Your task to perform on an android device: make emails show in primary in the gmail app Image 0: 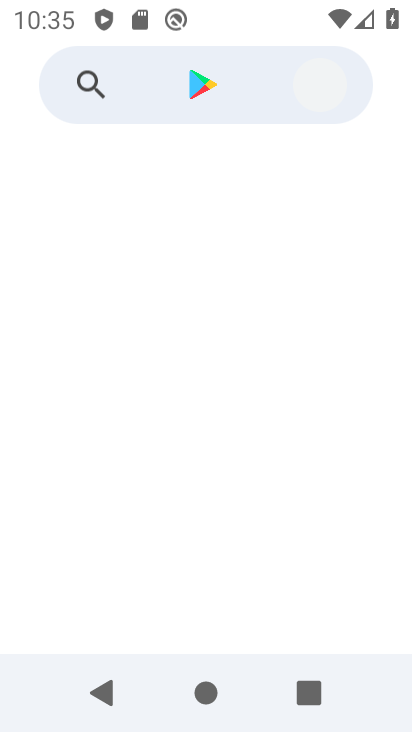
Step 0: press home button
Your task to perform on an android device: make emails show in primary in the gmail app Image 1: 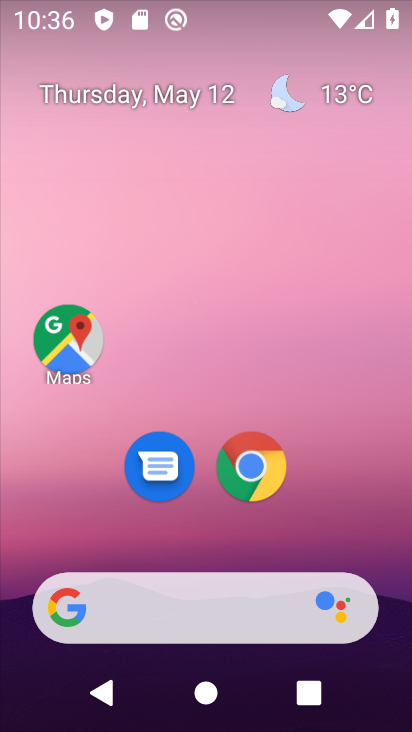
Step 1: drag from (370, 538) to (367, 148)
Your task to perform on an android device: make emails show in primary in the gmail app Image 2: 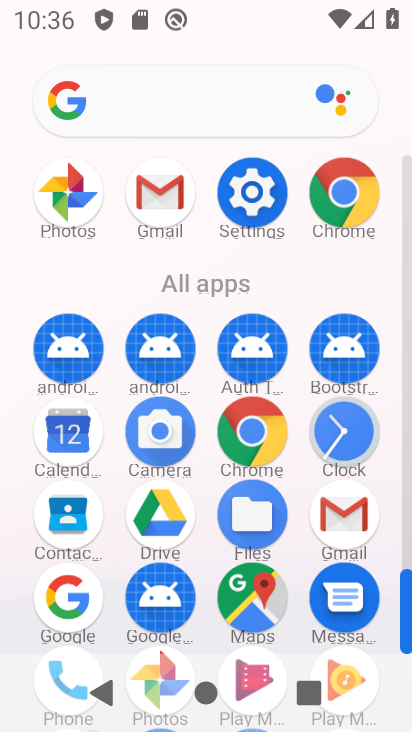
Step 2: click (334, 525)
Your task to perform on an android device: make emails show in primary in the gmail app Image 3: 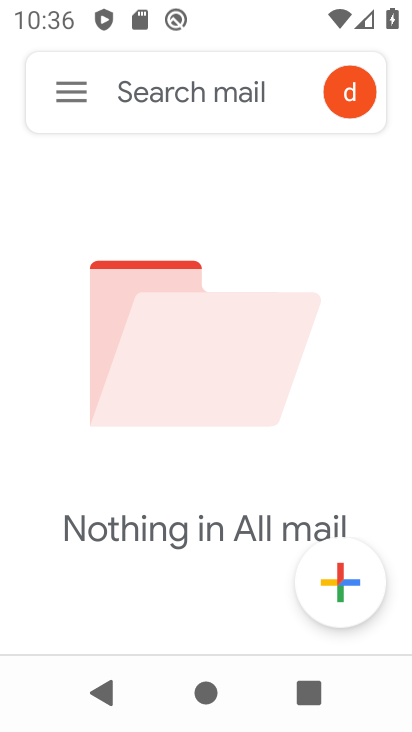
Step 3: click (86, 95)
Your task to perform on an android device: make emails show in primary in the gmail app Image 4: 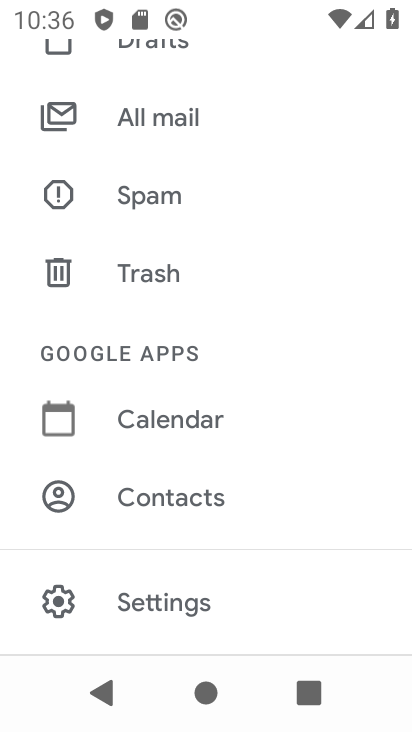
Step 4: drag from (282, 172) to (280, 571)
Your task to perform on an android device: make emails show in primary in the gmail app Image 5: 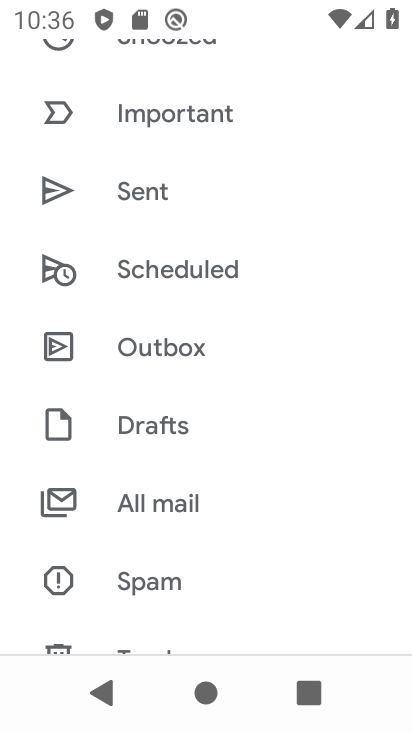
Step 5: drag from (253, 139) to (234, 579)
Your task to perform on an android device: make emails show in primary in the gmail app Image 6: 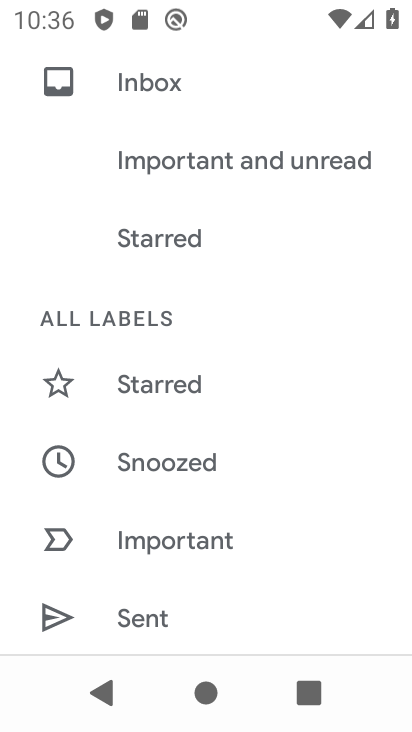
Step 6: drag from (282, 120) to (248, 401)
Your task to perform on an android device: make emails show in primary in the gmail app Image 7: 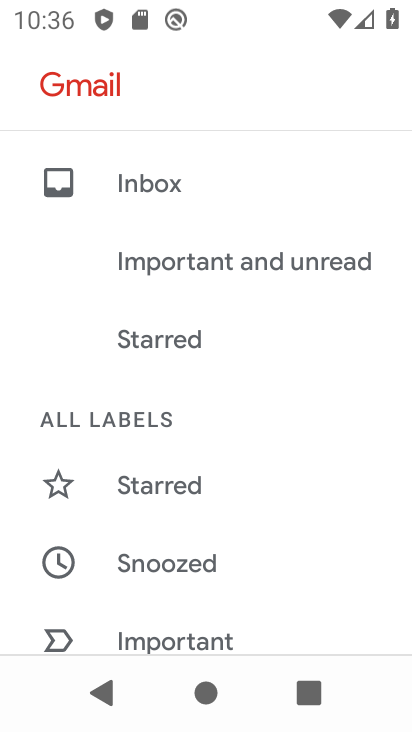
Step 7: drag from (287, 570) to (287, 178)
Your task to perform on an android device: make emails show in primary in the gmail app Image 8: 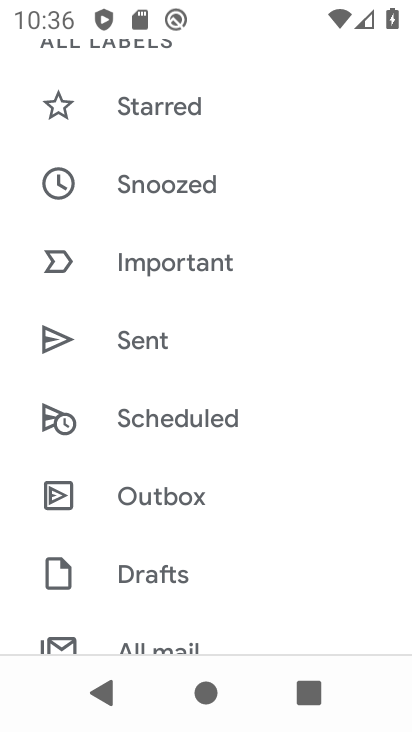
Step 8: drag from (286, 606) to (288, 149)
Your task to perform on an android device: make emails show in primary in the gmail app Image 9: 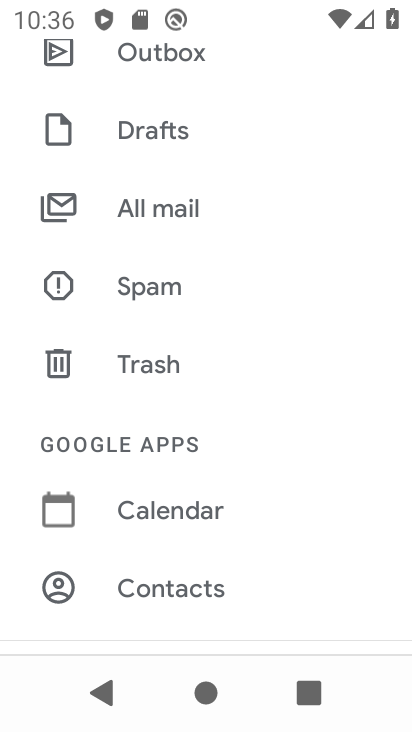
Step 9: drag from (306, 607) to (307, 176)
Your task to perform on an android device: make emails show in primary in the gmail app Image 10: 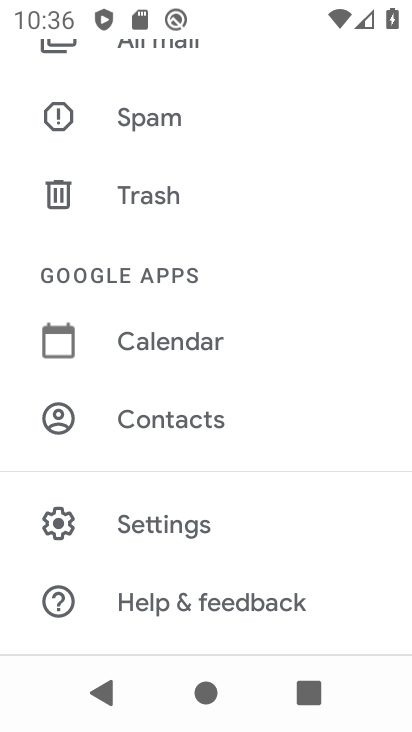
Step 10: click (224, 528)
Your task to perform on an android device: make emails show in primary in the gmail app Image 11: 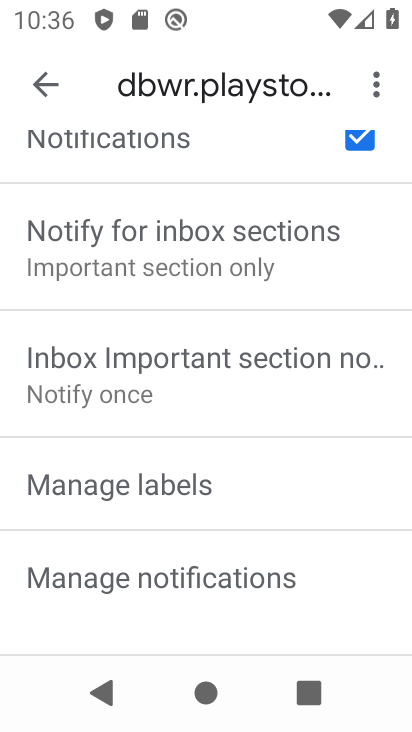
Step 11: drag from (278, 541) to (267, 222)
Your task to perform on an android device: make emails show in primary in the gmail app Image 12: 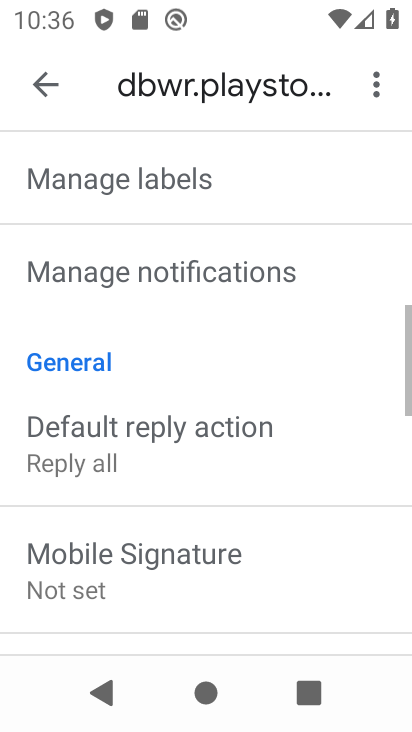
Step 12: drag from (304, 563) to (303, 290)
Your task to perform on an android device: make emails show in primary in the gmail app Image 13: 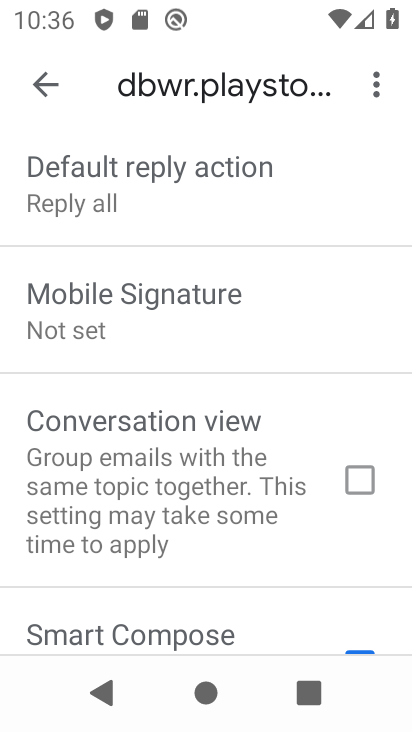
Step 13: drag from (305, 584) to (291, 284)
Your task to perform on an android device: make emails show in primary in the gmail app Image 14: 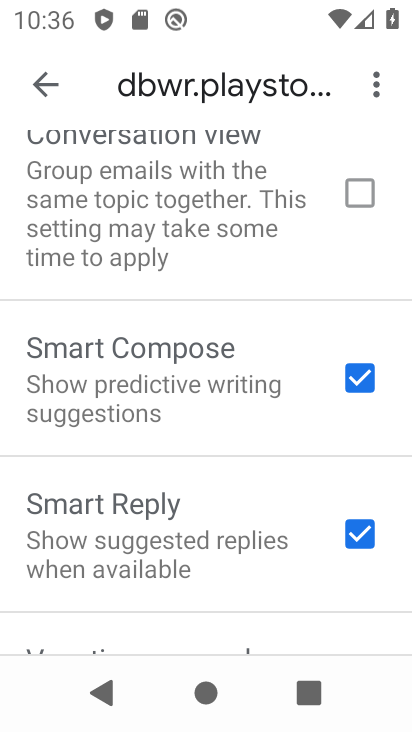
Step 14: drag from (264, 587) to (256, 246)
Your task to perform on an android device: make emails show in primary in the gmail app Image 15: 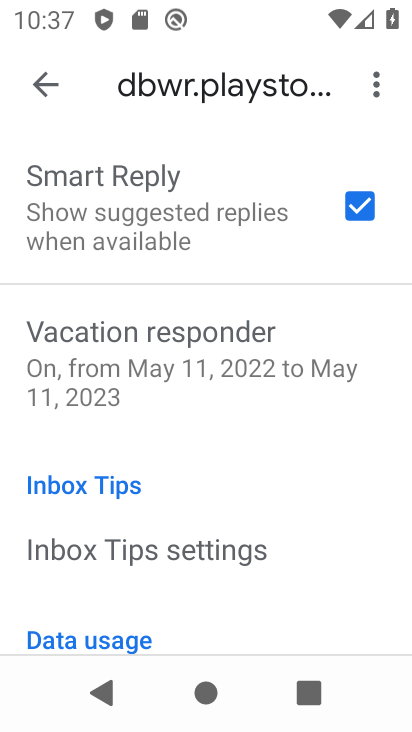
Step 15: drag from (278, 248) to (263, 581)
Your task to perform on an android device: make emails show in primary in the gmail app Image 16: 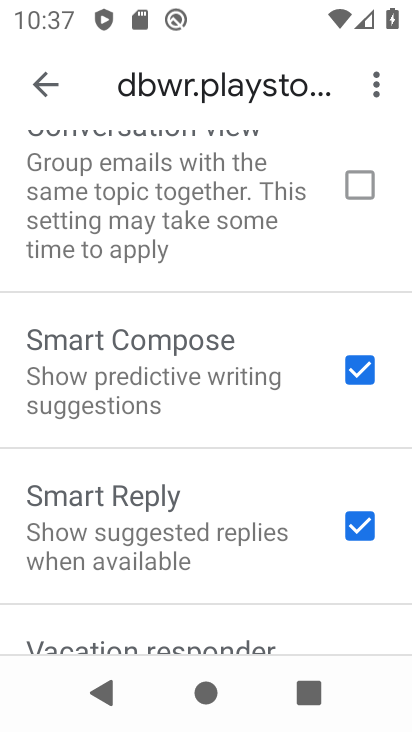
Step 16: drag from (257, 516) to (270, 170)
Your task to perform on an android device: make emails show in primary in the gmail app Image 17: 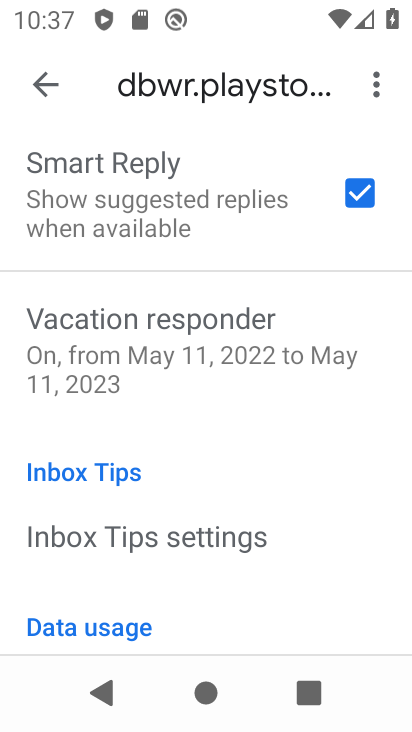
Step 17: drag from (303, 604) to (268, 170)
Your task to perform on an android device: make emails show in primary in the gmail app Image 18: 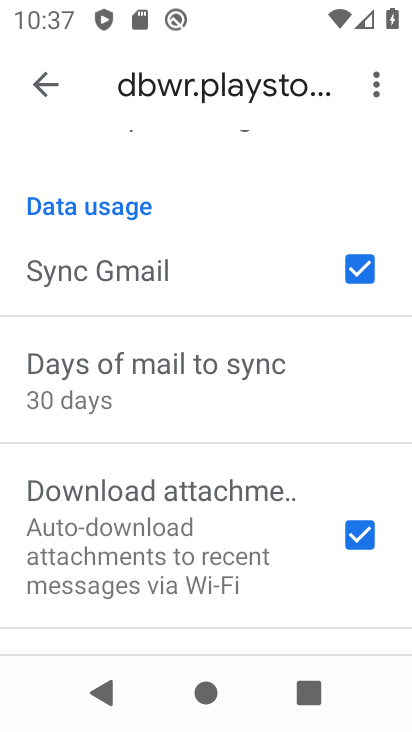
Step 18: drag from (279, 562) to (270, 210)
Your task to perform on an android device: make emails show in primary in the gmail app Image 19: 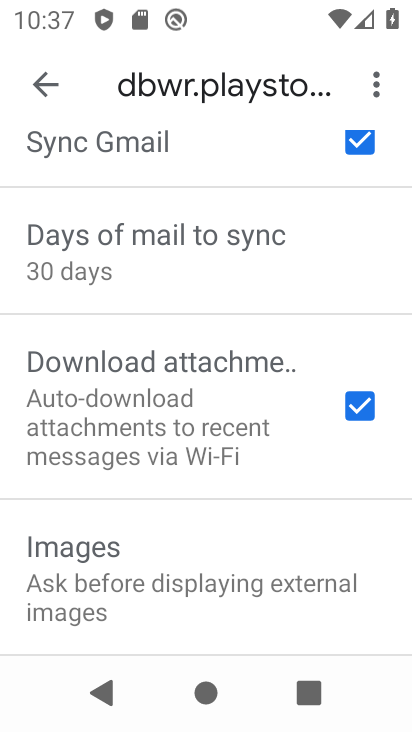
Step 19: drag from (259, 184) to (289, 600)
Your task to perform on an android device: make emails show in primary in the gmail app Image 20: 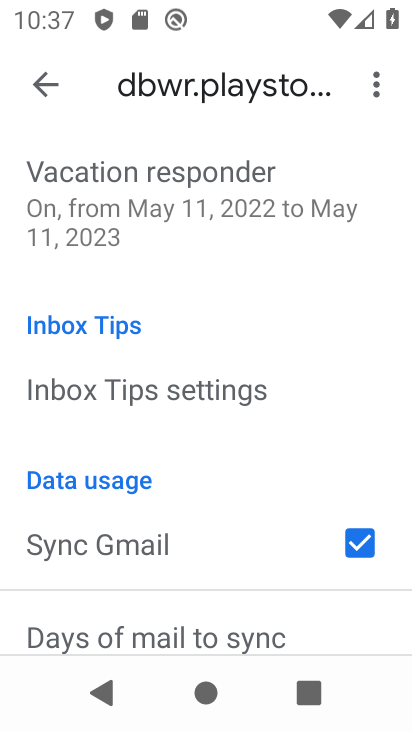
Step 20: drag from (281, 201) to (241, 633)
Your task to perform on an android device: make emails show in primary in the gmail app Image 21: 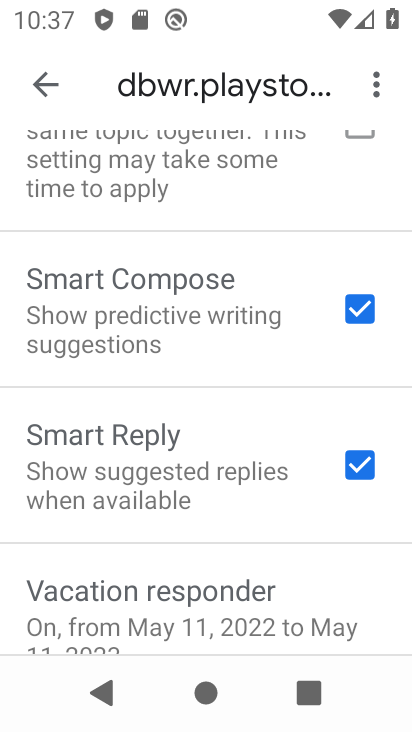
Step 21: drag from (256, 226) to (257, 583)
Your task to perform on an android device: make emails show in primary in the gmail app Image 22: 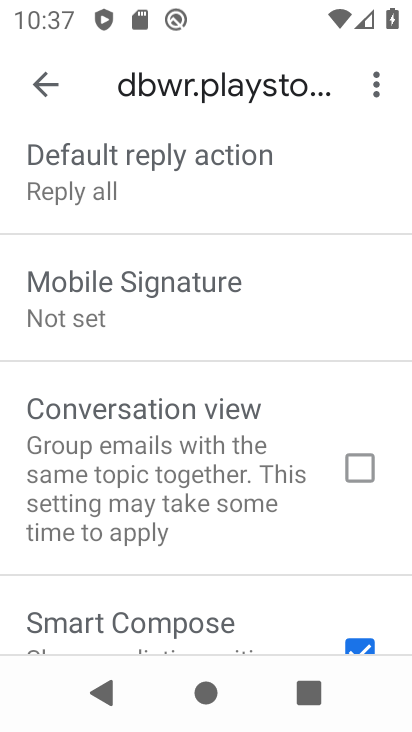
Step 22: drag from (216, 203) to (199, 590)
Your task to perform on an android device: make emails show in primary in the gmail app Image 23: 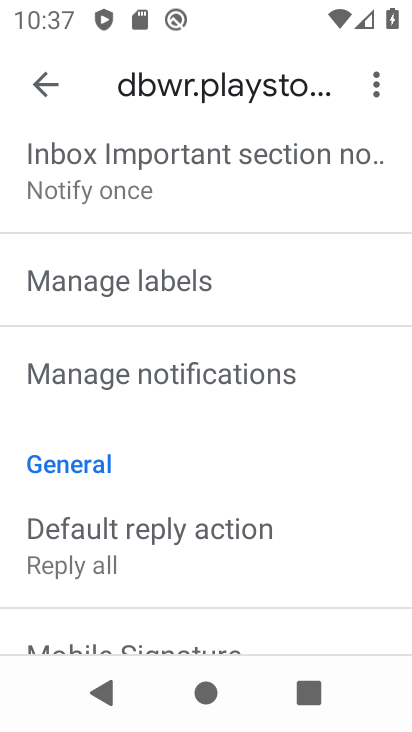
Step 23: drag from (219, 304) to (220, 623)
Your task to perform on an android device: make emails show in primary in the gmail app Image 24: 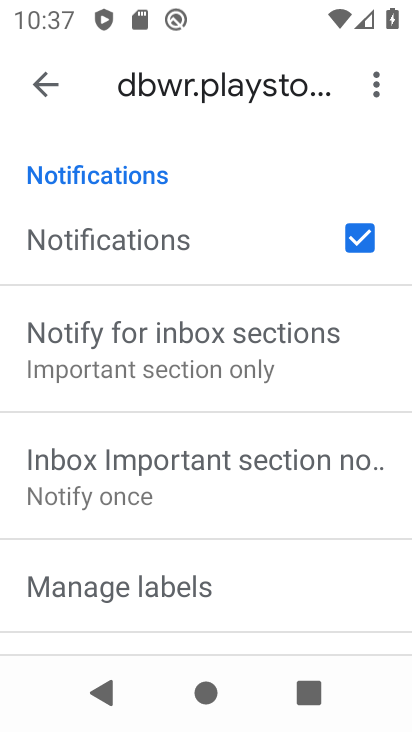
Step 24: drag from (234, 206) to (236, 604)
Your task to perform on an android device: make emails show in primary in the gmail app Image 25: 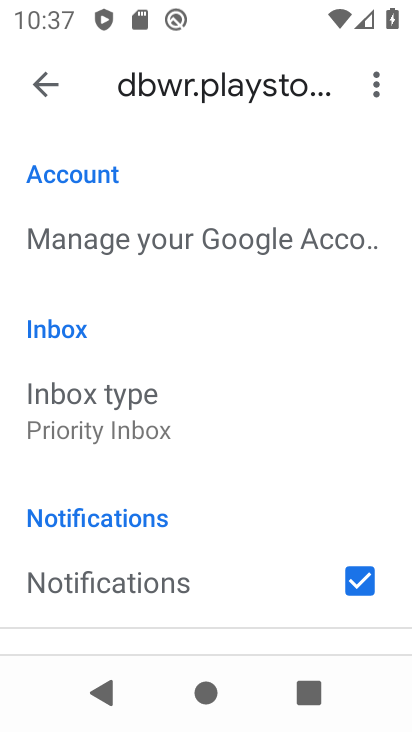
Step 25: click (145, 403)
Your task to perform on an android device: make emails show in primary in the gmail app Image 26: 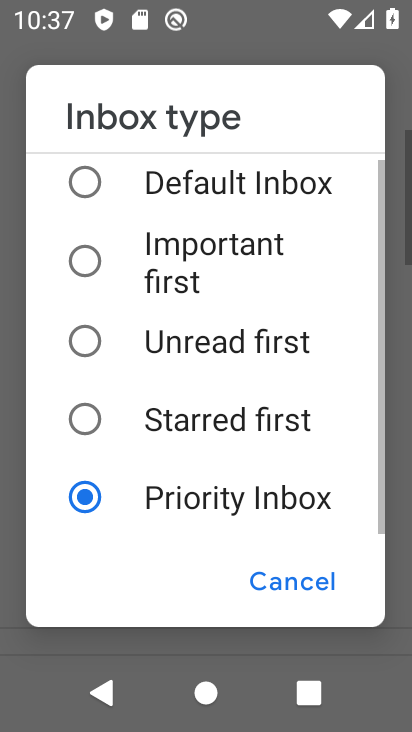
Step 26: click (166, 189)
Your task to perform on an android device: make emails show in primary in the gmail app Image 27: 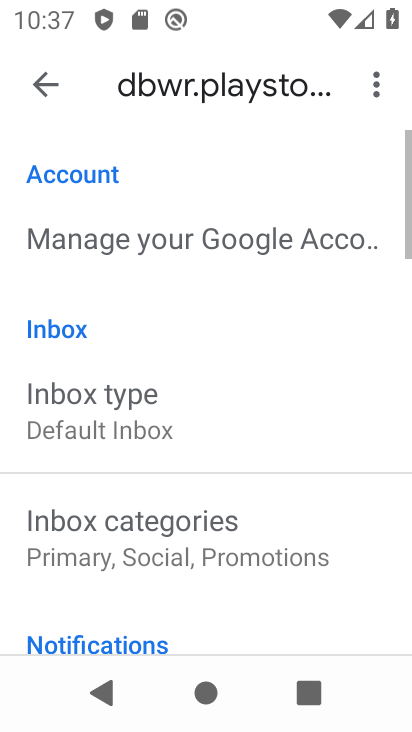
Step 27: click (46, 101)
Your task to perform on an android device: make emails show in primary in the gmail app Image 28: 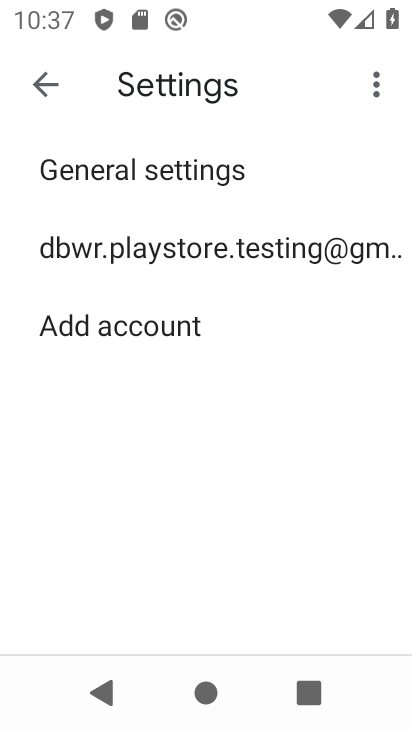
Step 28: click (46, 101)
Your task to perform on an android device: make emails show in primary in the gmail app Image 29: 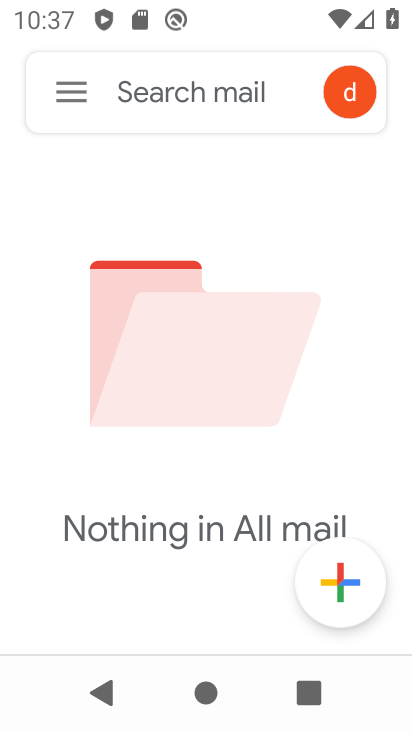
Step 29: click (84, 100)
Your task to perform on an android device: make emails show in primary in the gmail app Image 30: 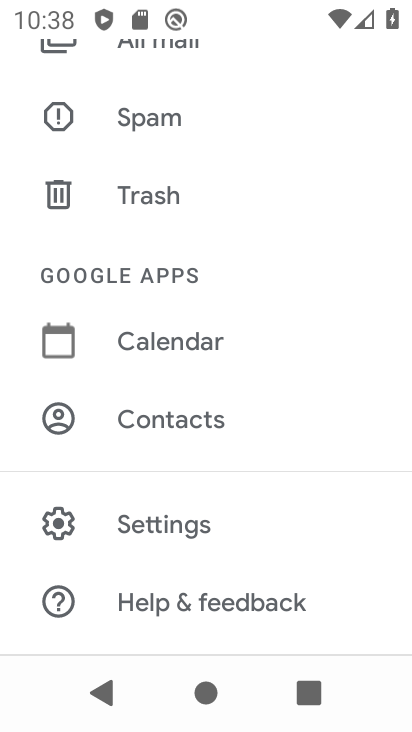
Step 30: drag from (221, 113) to (207, 428)
Your task to perform on an android device: make emails show in primary in the gmail app Image 31: 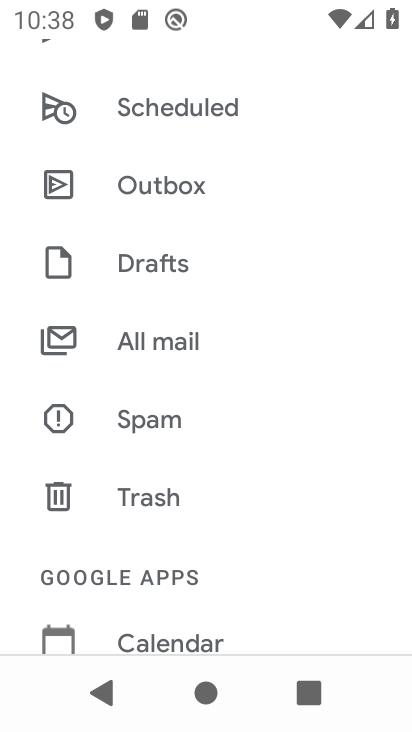
Step 31: drag from (232, 196) to (236, 594)
Your task to perform on an android device: make emails show in primary in the gmail app Image 32: 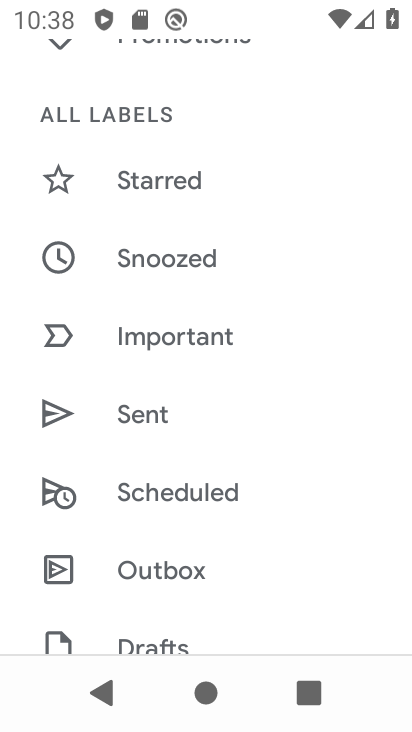
Step 32: drag from (272, 228) to (256, 615)
Your task to perform on an android device: make emails show in primary in the gmail app Image 33: 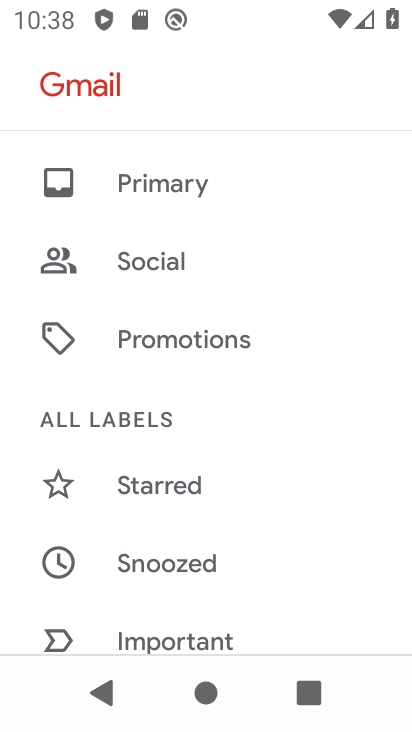
Step 33: click (241, 192)
Your task to perform on an android device: make emails show in primary in the gmail app Image 34: 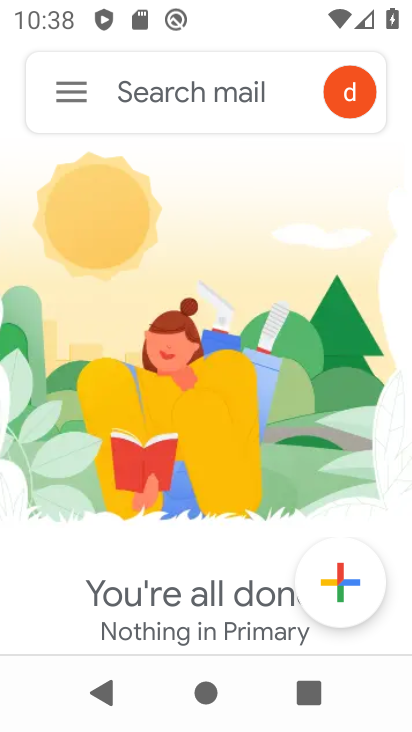
Step 34: task complete